Your task to perform on an android device: Open Youtube and go to the subscriptions tab Image 0: 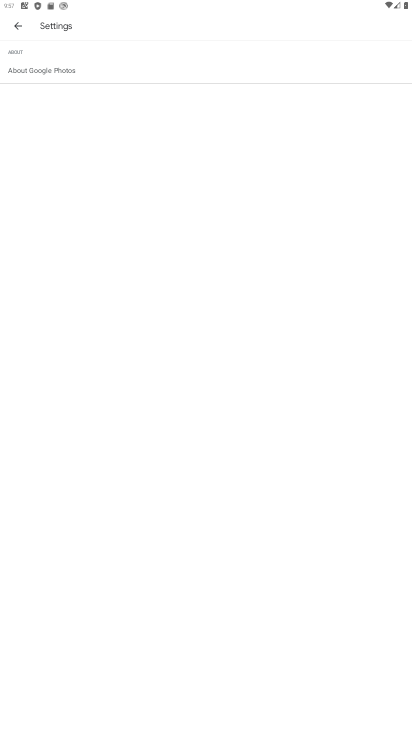
Step 0: press back button
Your task to perform on an android device: Open Youtube and go to the subscriptions tab Image 1: 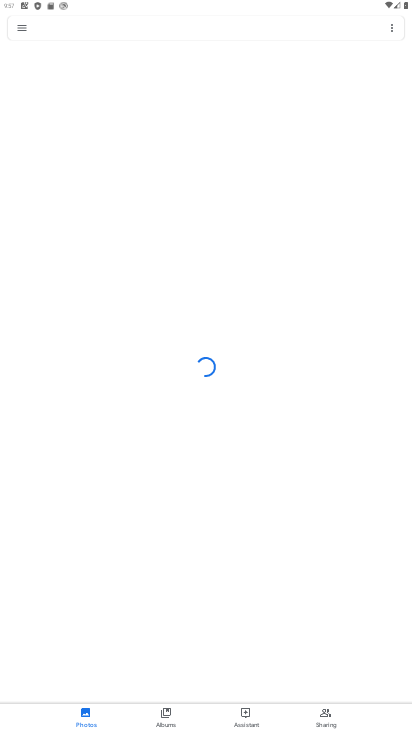
Step 1: press home button
Your task to perform on an android device: Open Youtube and go to the subscriptions tab Image 2: 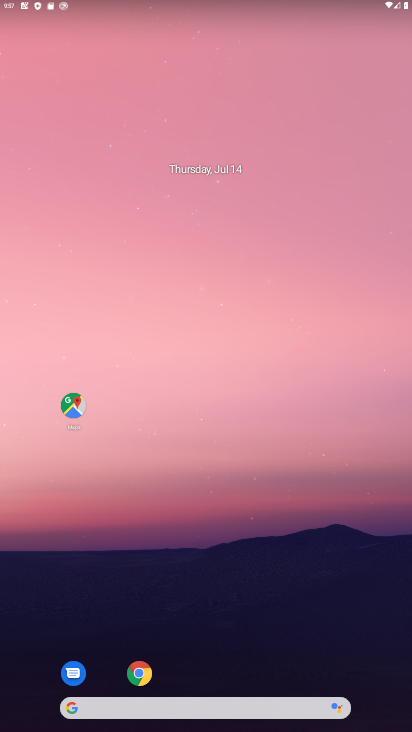
Step 2: drag from (215, 683) to (71, 157)
Your task to perform on an android device: Open Youtube and go to the subscriptions tab Image 3: 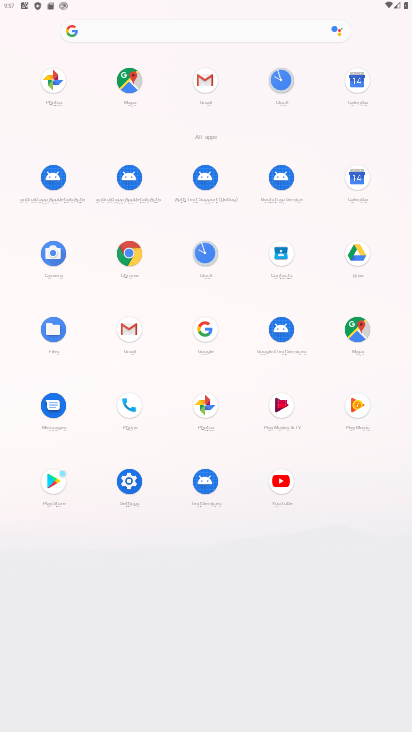
Step 3: click (285, 482)
Your task to perform on an android device: Open Youtube and go to the subscriptions tab Image 4: 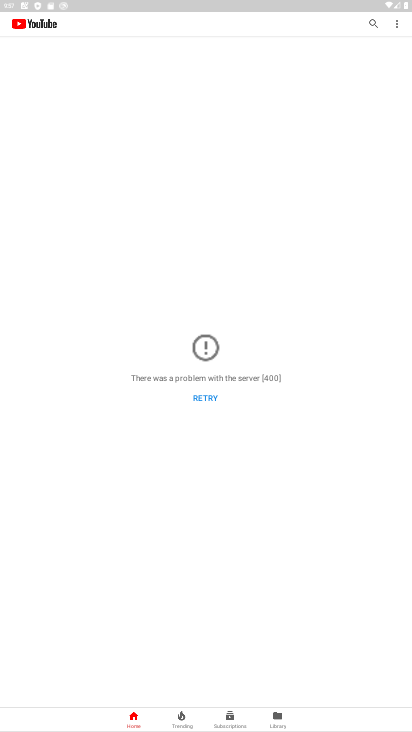
Step 4: click (226, 710)
Your task to perform on an android device: Open Youtube and go to the subscriptions tab Image 5: 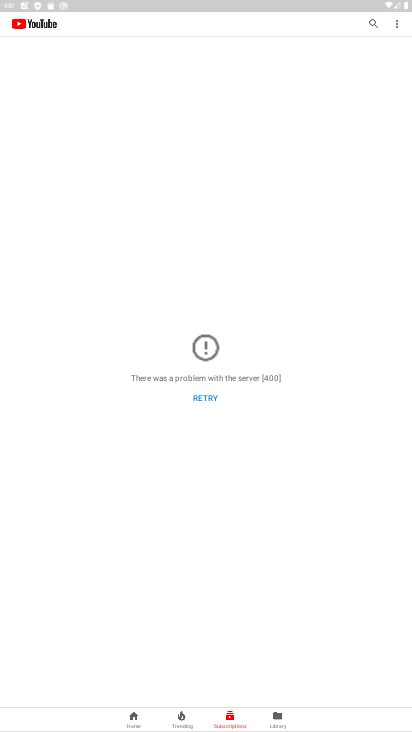
Step 5: click (226, 710)
Your task to perform on an android device: Open Youtube and go to the subscriptions tab Image 6: 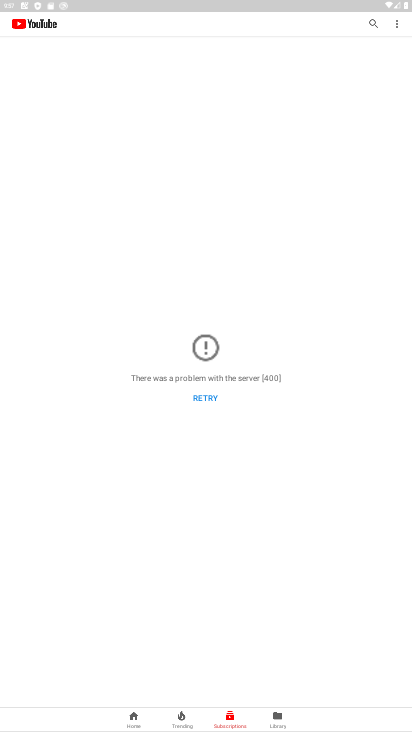
Step 6: click (210, 400)
Your task to perform on an android device: Open Youtube and go to the subscriptions tab Image 7: 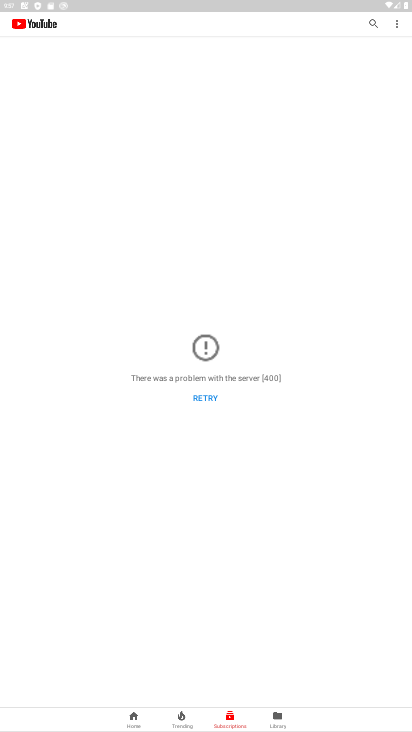
Step 7: task complete